Your task to perform on an android device: Open accessibility settings Image 0: 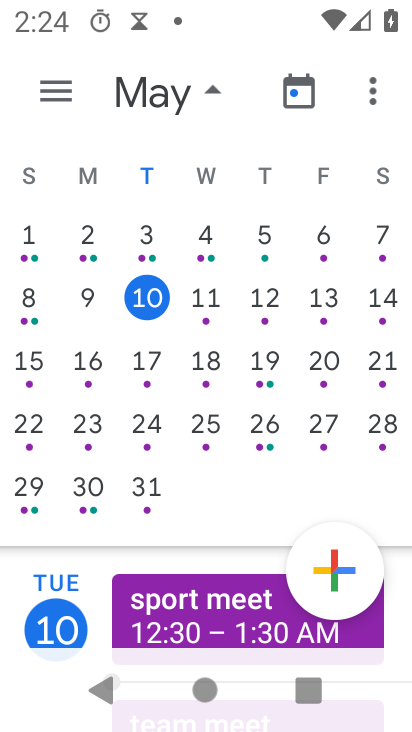
Step 0: press home button
Your task to perform on an android device: Open accessibility settings Image 1: 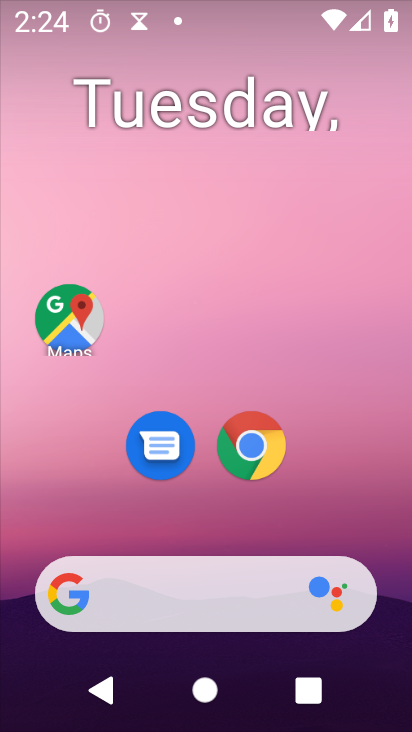
Step 1: drag from (281, 584) to (253, 55)
Your task to perform on an android device: Open accessibility settings Image 2: 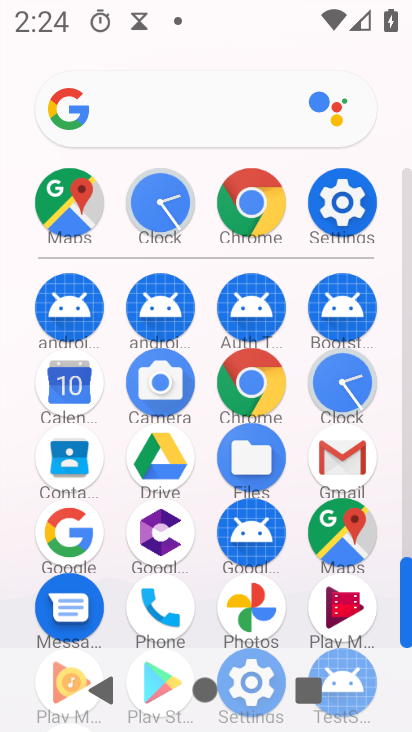
Step 2: click (346, 205)
Your task to perform on an android device: Open accessibility settings Image 3: 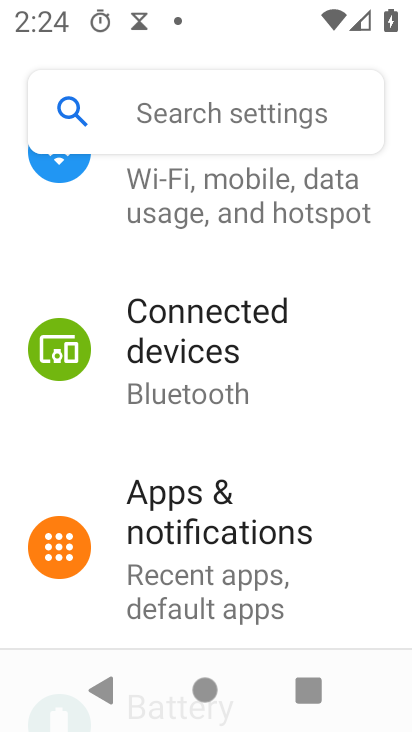
Step 3: drag from (280, 651) to (318, 201)
Your task to perform on an android device: Open accessibility settings Image 4: 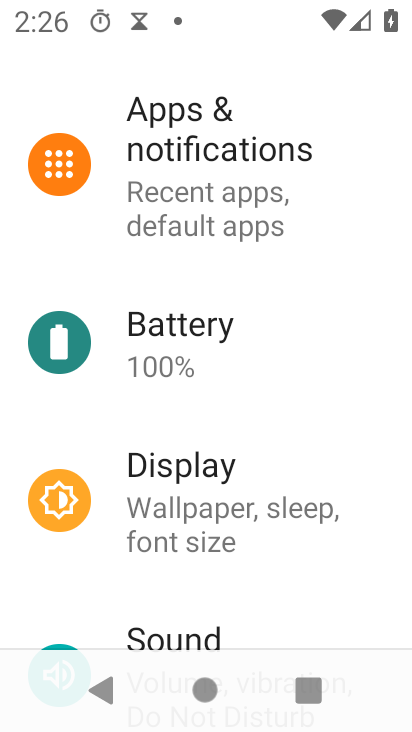
Step 4: drag from (156, 607) to (244, 155)
Your task to perform on an android device: Open accessibility settings Image 5: 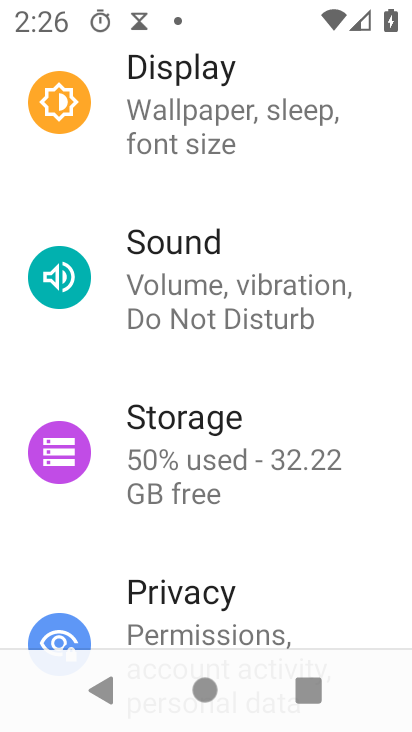
Step 5: drag from (223, 635) to (241, 319)
Your task to perform on an android device: Open accessibility settings Image 6: 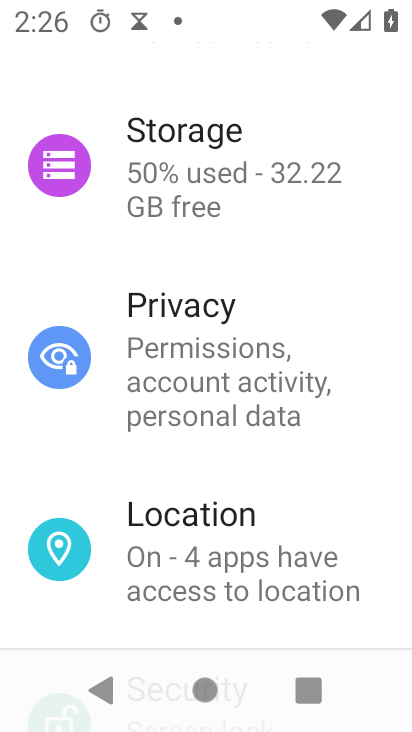
Step 6: drag from (249, 625) to (253, 274)
Your task to perform on an android device: Open accessibility settings Image 7: 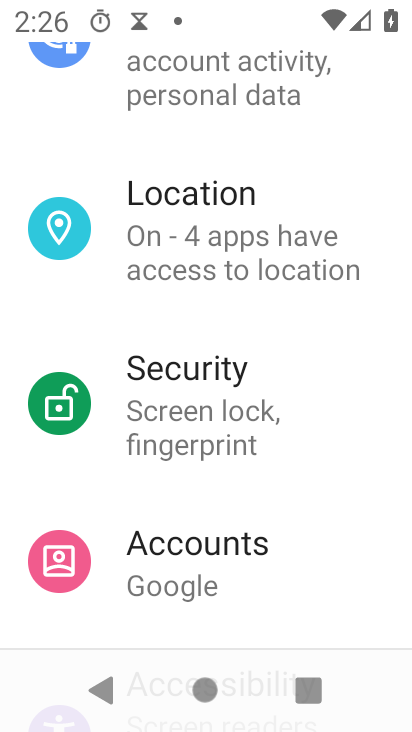
Step 7: drag from (243, 609) to (284, 177)
Your task to perform on an android device: Open accessibility settings Image 8: 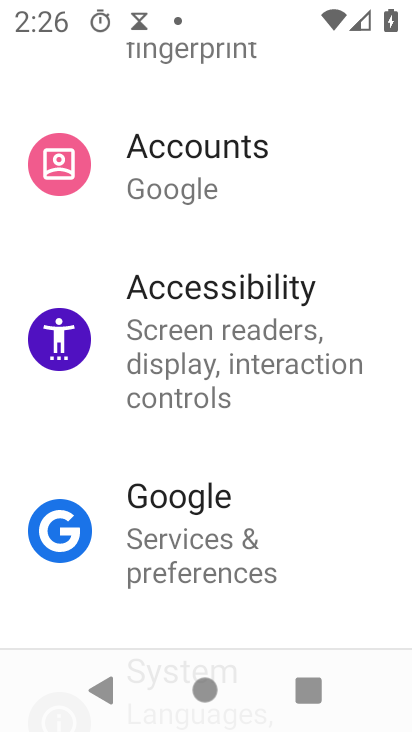
Step 8: click (162, 357)
Your task to perform on an android device: Open accessibility settings Image 9: 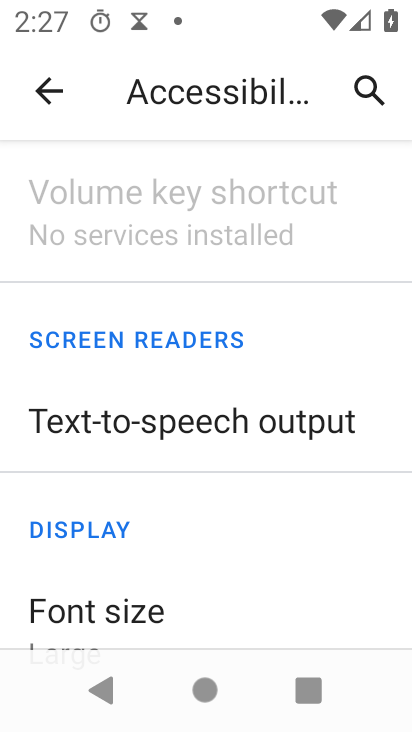
Step 9: task complete